Your task to perform on an android device: What's the weather going to be this weekend? Image 0: 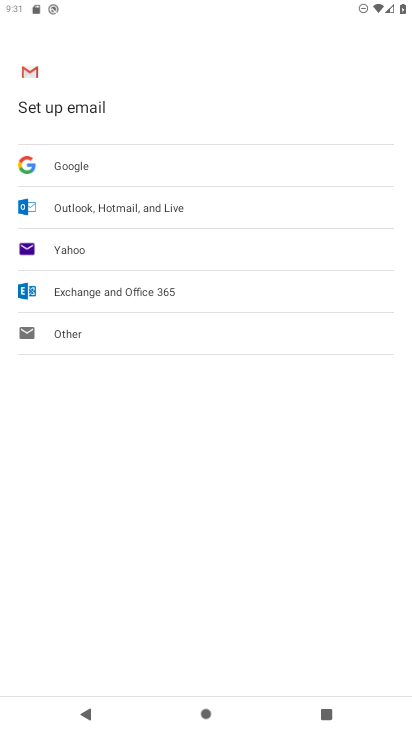
Step 0: press home button
Your task to perform on an android device: What's the weather going to be this weekend? Image 1: 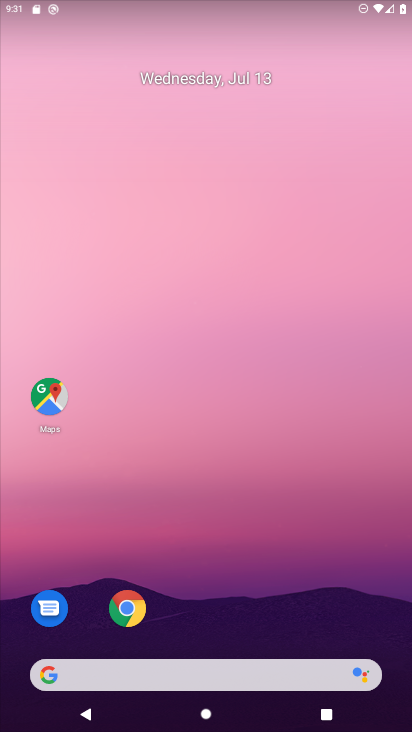
Step 1: click (0, 310)
Your task to perform on an android device: What's the weather going to be this weekend? Image 2: 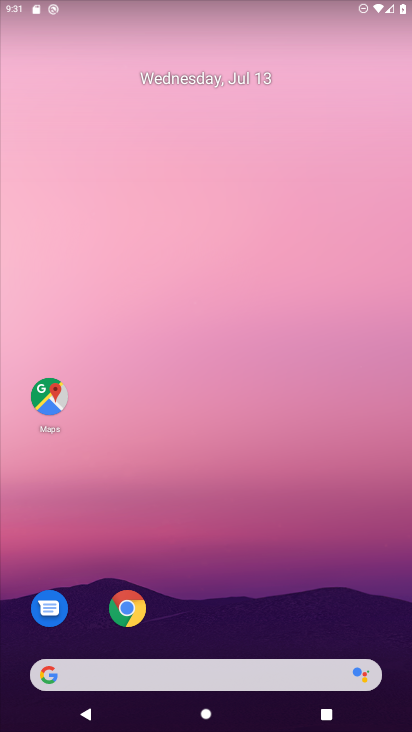
Step 2: drag from (318, 243) to (398, 234)
Your task to perform on an android device: What's the weather going to be this weekend? Image 3: 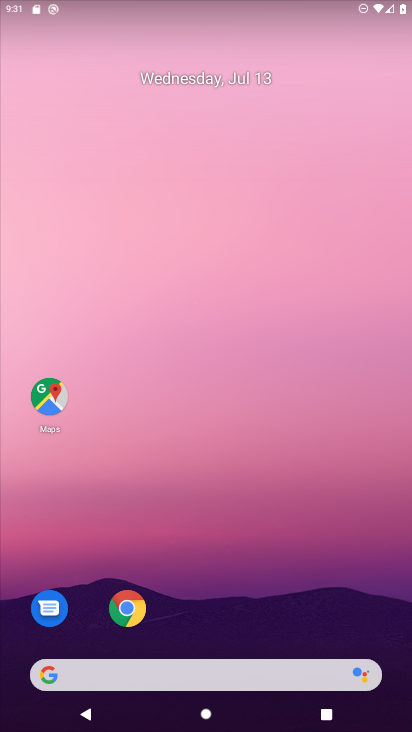
Step 3: drag from (39, 226) to (411, 158)
Your task to perform on an android device: What's the weather going to be this weekend? Image 4: 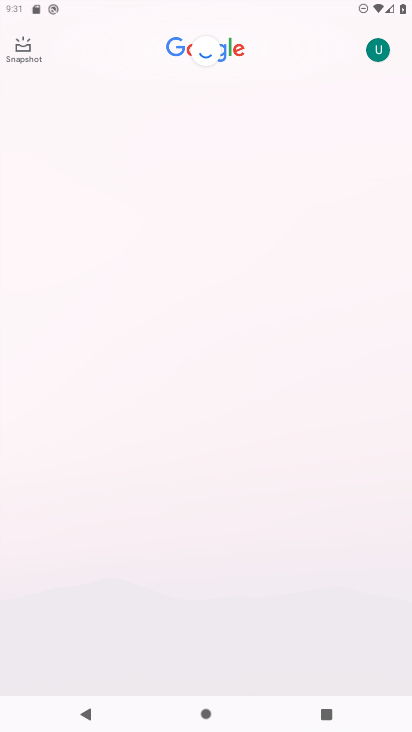
Step 4: drag from (204, 123) to (173, 600)
Your task to perform on an android device: What's the weather going to be this weekend? Image 5: 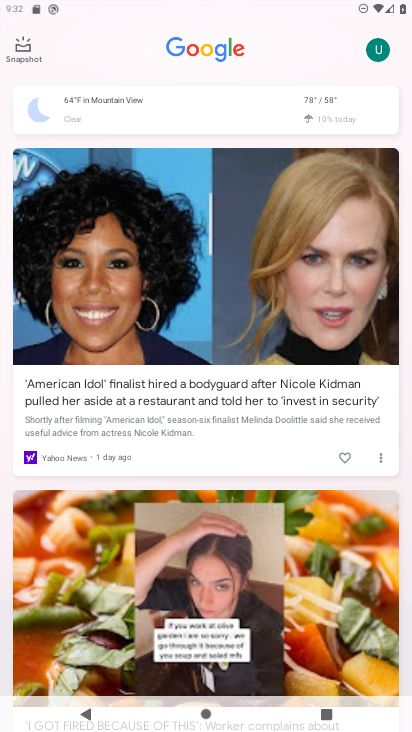
Step 5: click (138, 103)
Your task to perform on an android device: What's the weather going to be this weekend? Image 6: 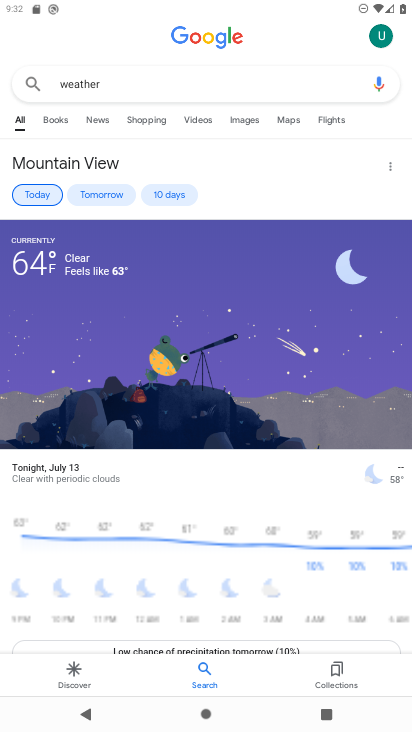
Step 6: task complete